Your task to perform on an android device: toggle notifications settings in the gmail app Image 0: 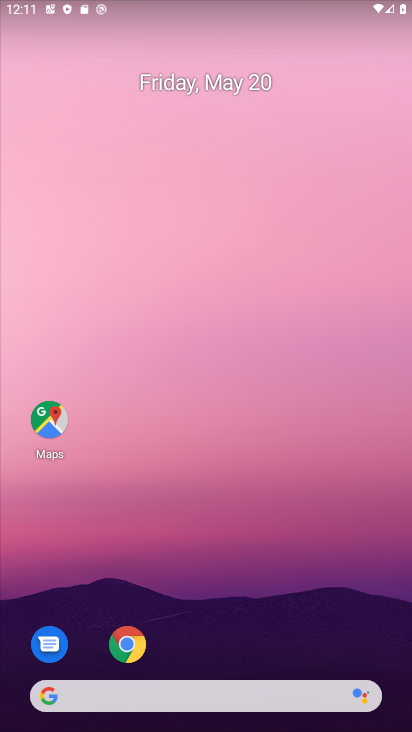
Step 0: drag from (314, 638) to (350, 5)
Your task to perform on an android device: toggle notifications settings in the gmail app Image 1: 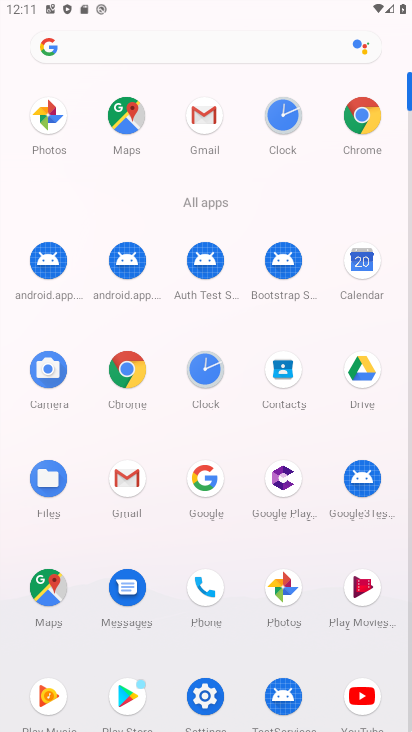
Step 1: click (208, 124)
Your task to perform on an android device: toggle notifications settings in the gmail app Image 2: 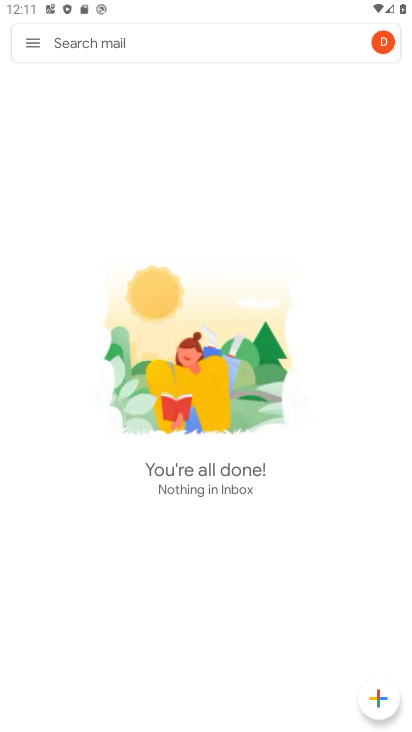
Step 2: click (36, 42)
Your task to perform on an android device: toggle notifications settings in the gmail app Image 3: 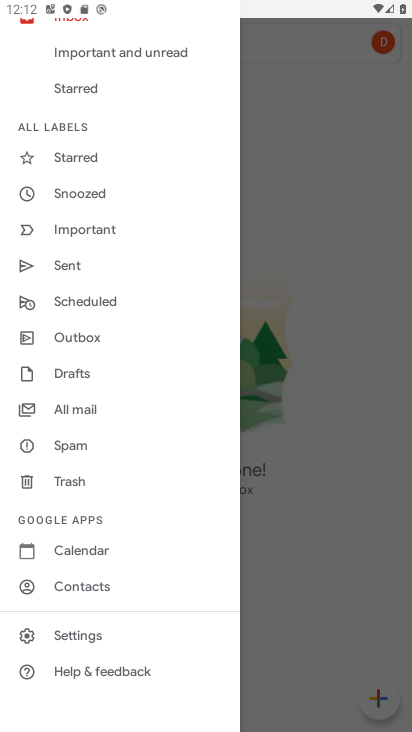
Step 3: click (94, 632)
Your task to perform on an android device: toggle notifications settings in the gmail app Image 4: 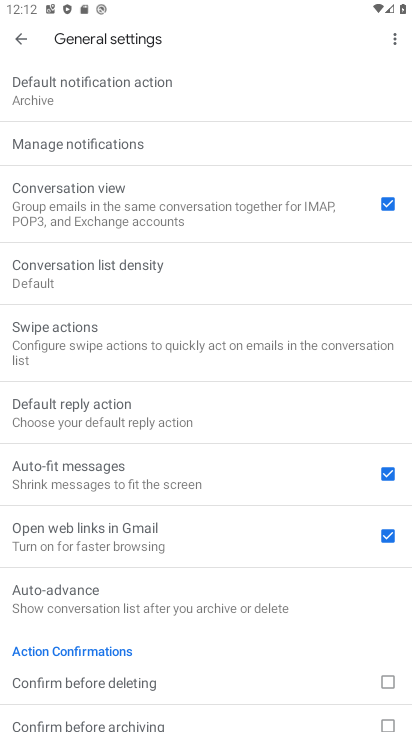
Step 4: click (80, 148)
Your task to perform on an android device: toggle notifications settings in the gmail app Image 5: 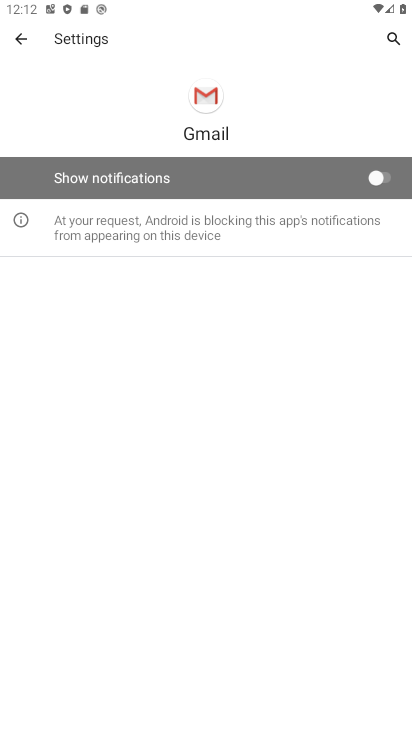
Step 5: click (393, 183)
Your task to perform on an android device: toggle notifications settings in the gmail app Image 6: 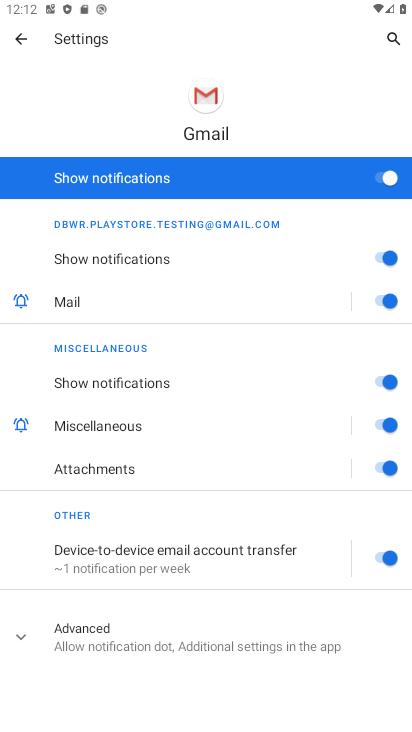
Step 6: task complete